Your task to perform on an android device: set the stopwatch Image 0: 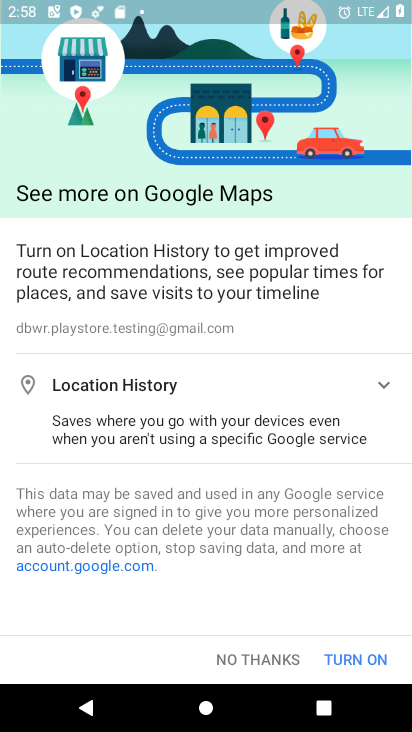
Step 0: click (273, 654)
Your task to perform on an android device: set the stopwatch Image 1: 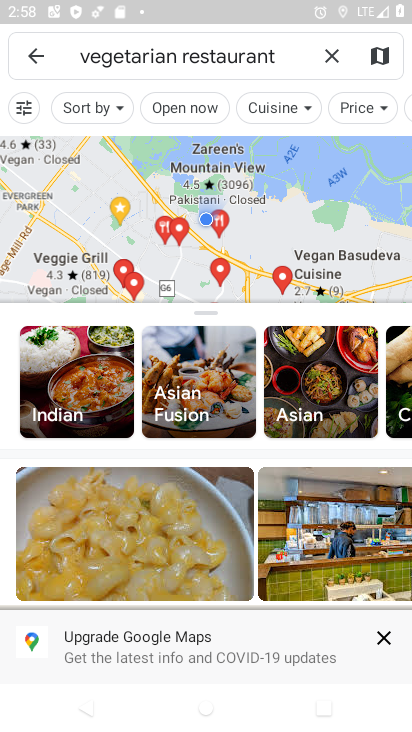
Step 1: press home button
Your task to perform on an android device: set the stopwatch Image 2: 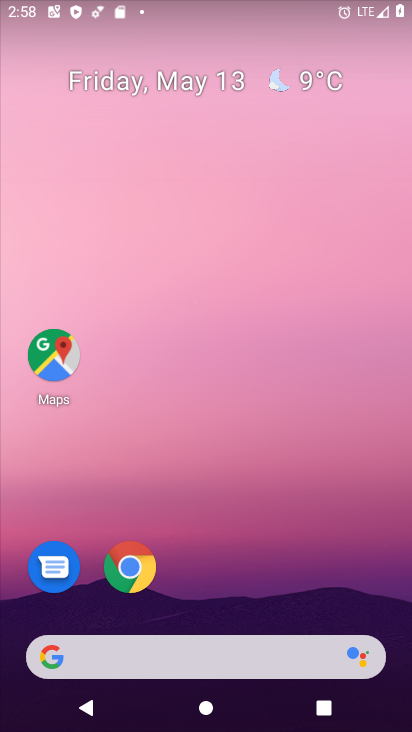
Step 2: drag from (229, 624) to (294, 26)
Your task to perform on an android device: set the stopwatch Image 3: 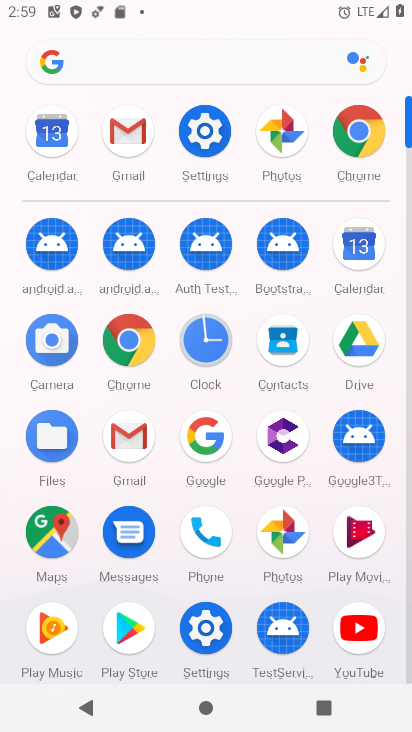
Step 3: click (207, 351)
Your task to perform on an android device: set the stopwatch Image 4: 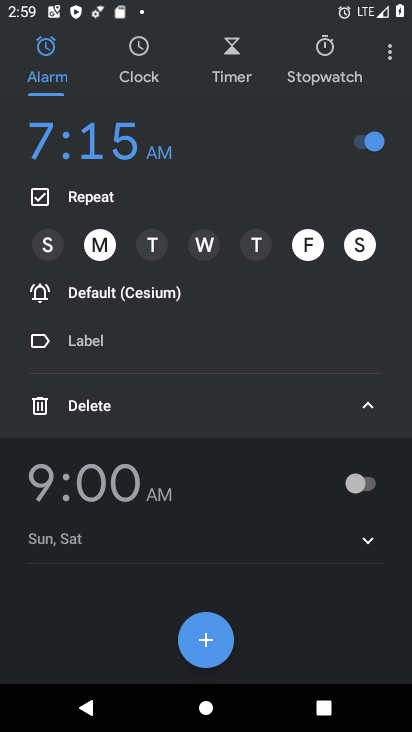
Step 4: click (336, 44)
Your task to perform on an android device: set the stopwatch Image 5: 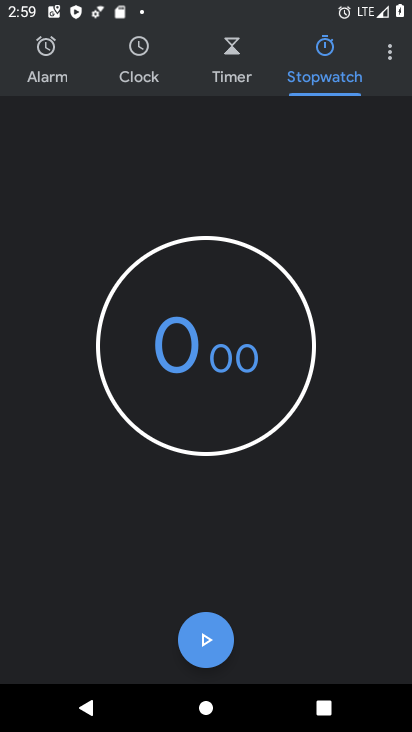
Step 5: click (205, 651)
Your task to perform on an android device: set the stopwatch Image 6: 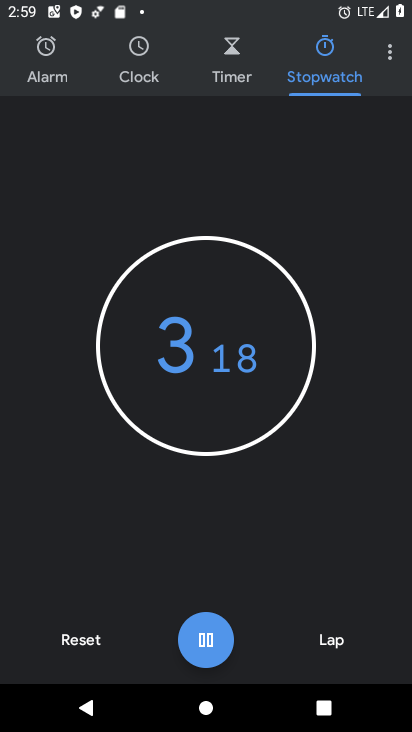
Step 6: task complete